Your task to perform on an android device: Go to eBay Image 0: 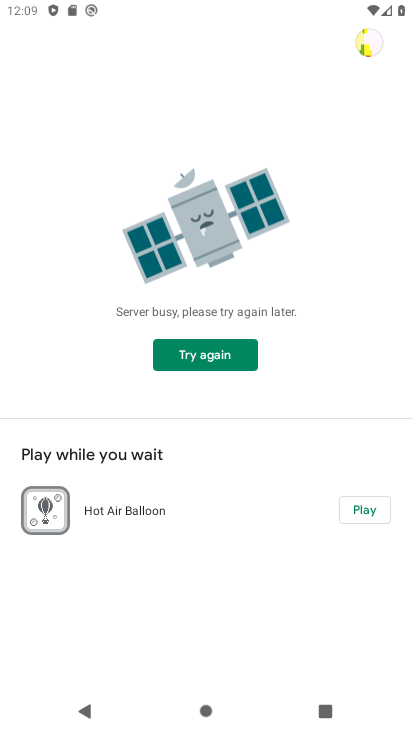
Step 0: press home button
Your task to perform on an android device: Go to eBay Image 1: 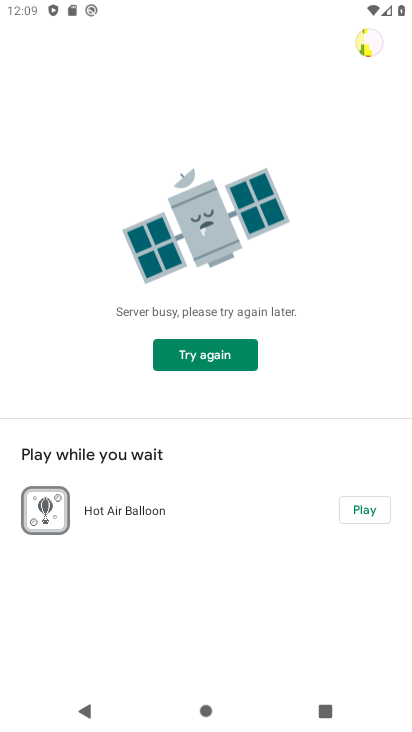
Step 1: press home button
Your task to perform on an android device: Go to eBay Image 2: 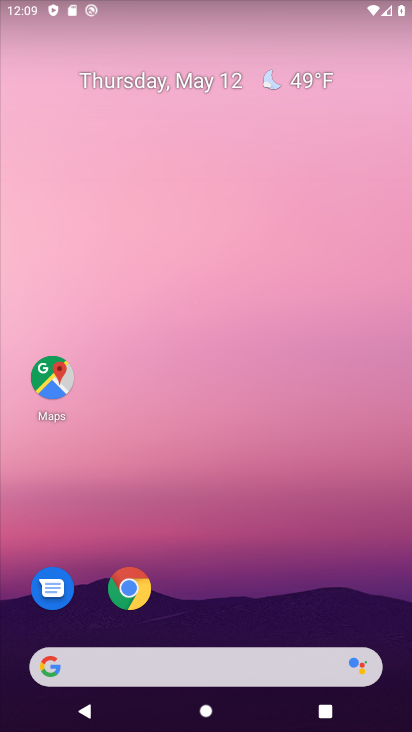
Step 2: drag from (296, 611) to (68, 54)
Your task to perform on an android device: Go to eBay Image 3: 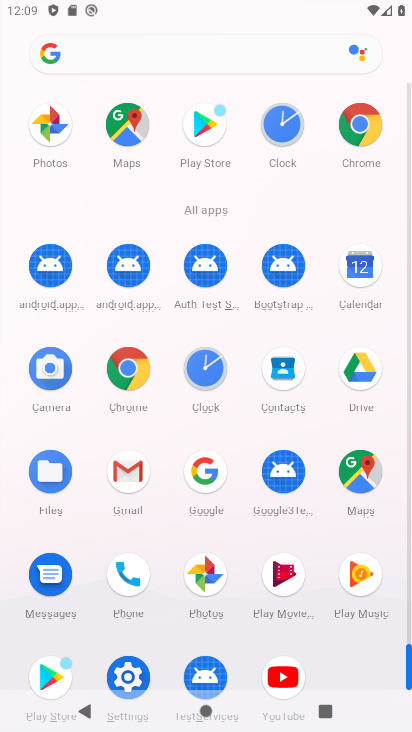
Step 3: click (356, 125)
Your task to perform on an android device: Go to eBay Image 4: 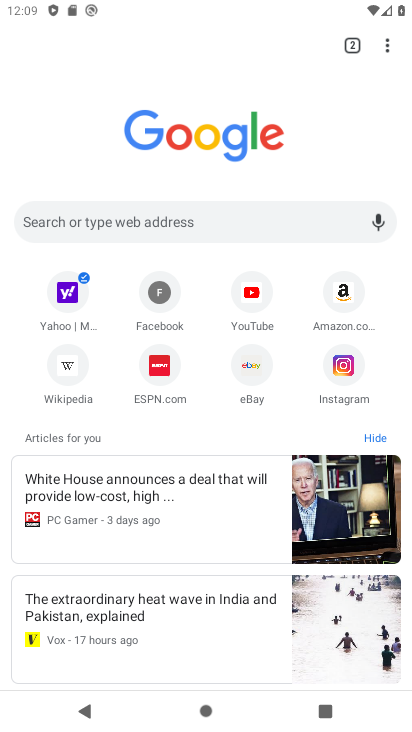
Step 4: click (58, 211)
Your task to perform on an android device: Go to eBay Image 5: 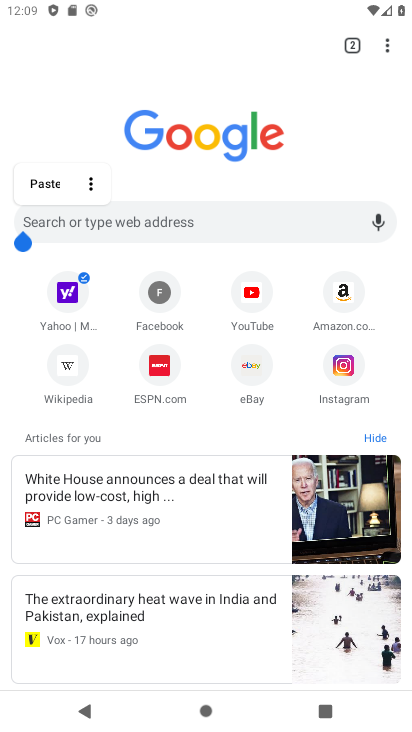
Step 5: click (48, 215)
Your task to perform on an android device: Go to eBay Image 6: 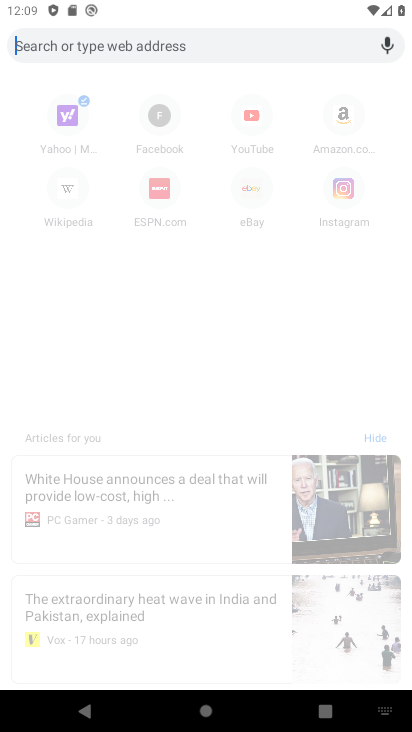
Step 6: click (235, 197)
Your task to perform on an android device: Go to eBay Image 7: 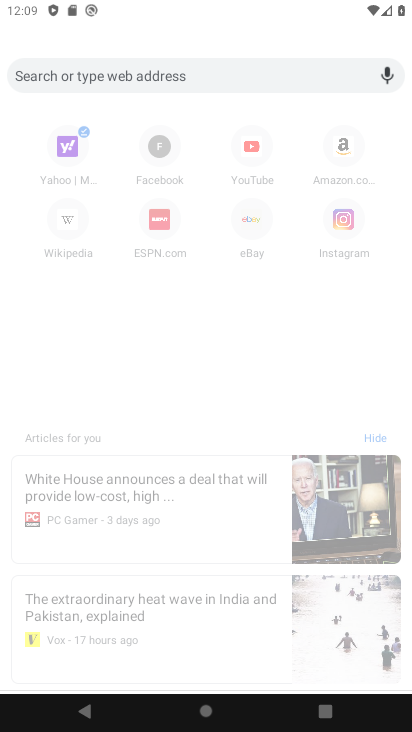
Step 7: click (240, 189)
Your task to perform on an android device: Go to eBay Image 8: 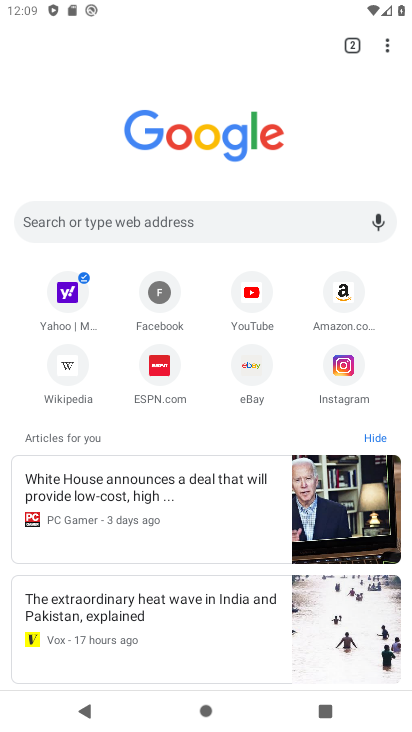
Step 8: click (257, 377)
Your task to perform on an android device: Go to eBay Image 9: 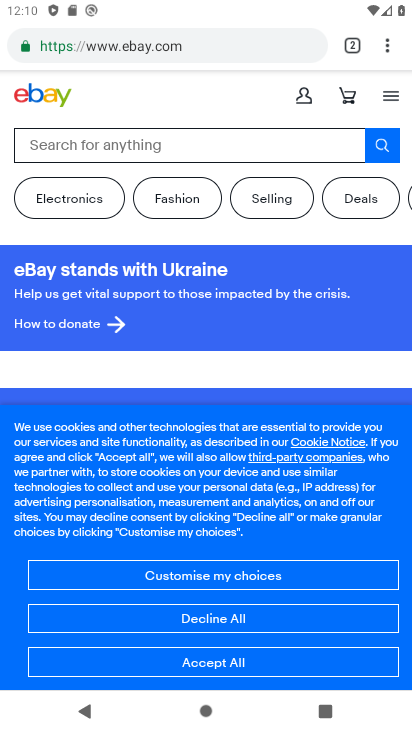
Step 9: task complete